Your task to perform on an android device: turn on airplane mode Image 0: 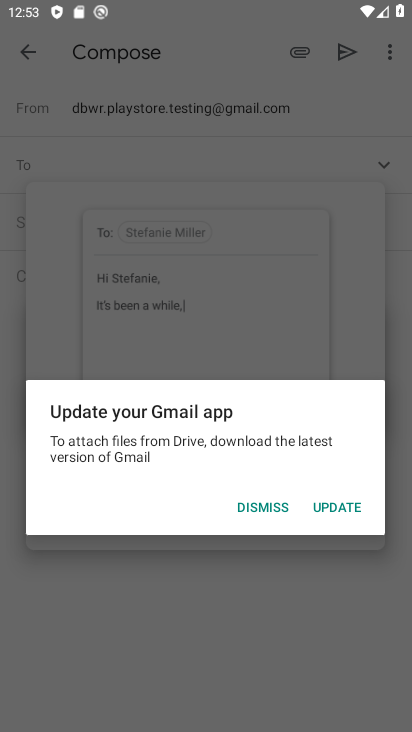
Step 0: press home button
Your task to perform on an android device: turn on airplane mode Image 1: 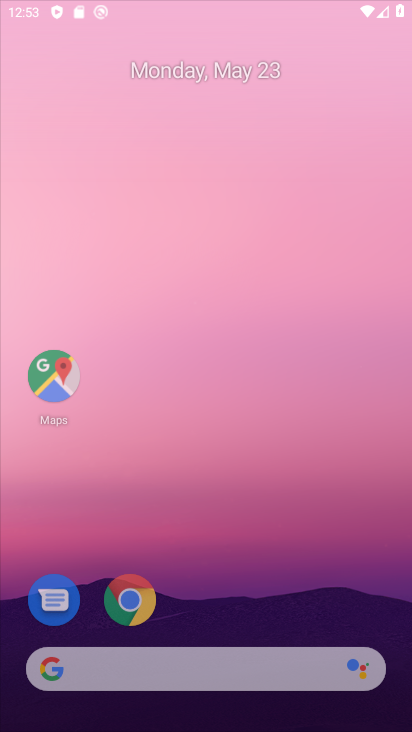
Step 1: press home button
Your task to perform on an android device: turn on airplane mode Image 2: 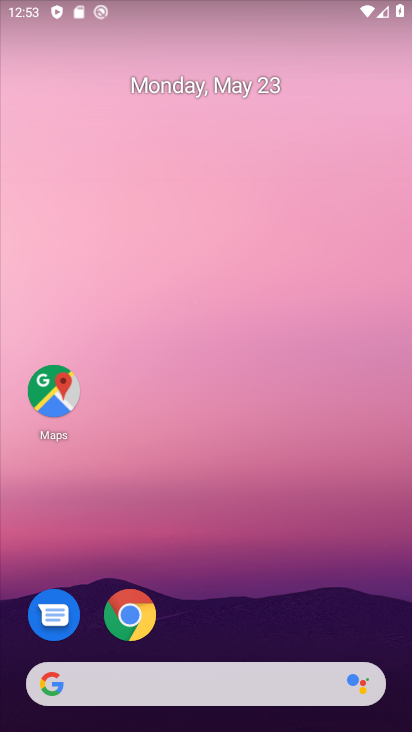
Step 2: drag from (210, 658) to (302, 44)
Your task to perform on an android device: turn on airplane mode Image 3: 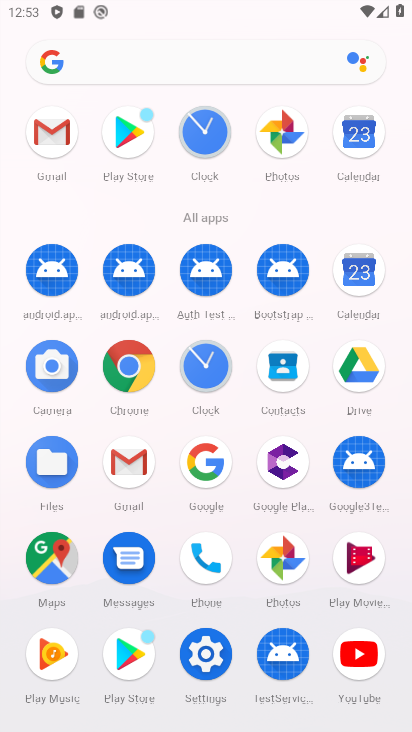
Step 3: click (187, 639)
Your task to perform on an android device: turn on airplane mode Image 4: 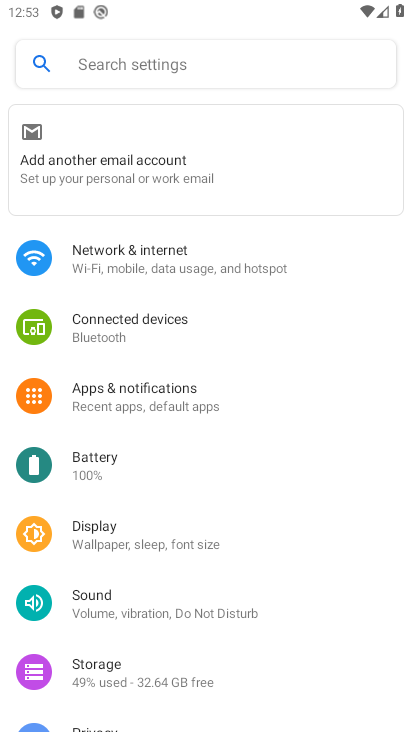
Step 4: click (142, 274)
Your task to perform on an android device: turn on airplane mode Image 5: 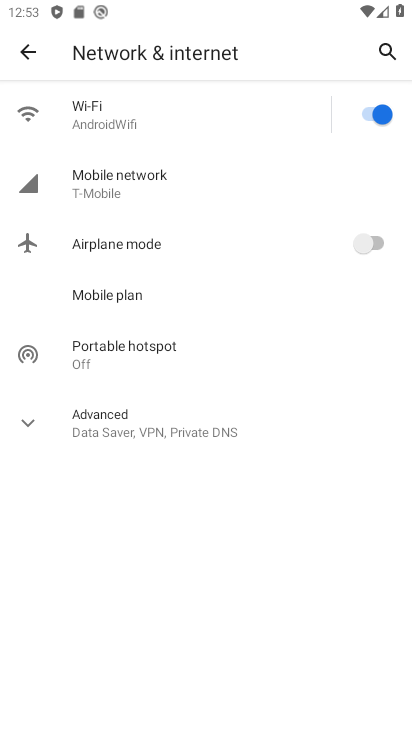
Step 5: click (371, 249)
Your task to perform on an android device: turn on airplane mode Image 6: 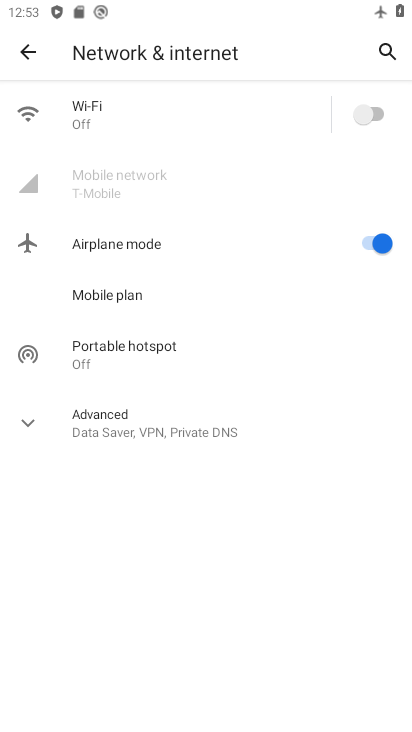
Step 6: task complete